Your task to perform on an android device: Check the news Image 0: 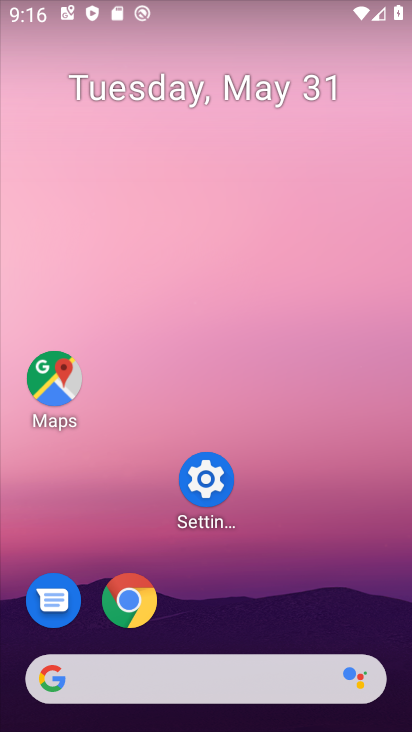
Step 0: drag from (215, 710) to (210, 293)
Your task to perform on an android device: Check the news Image 1: 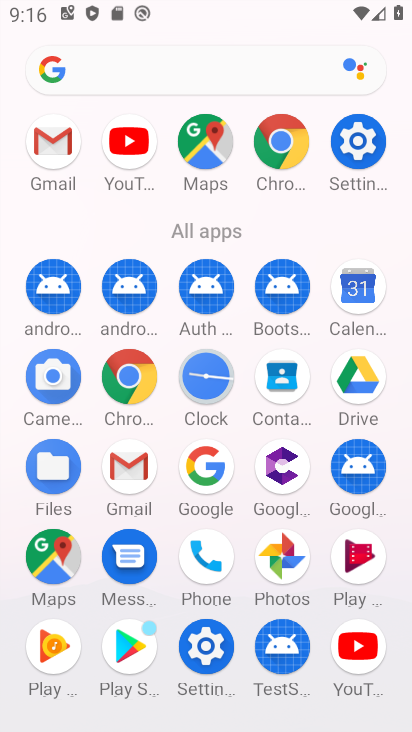
Step 1: click (100, 70)
Your task to perform on an android device: Check the news Image 2: 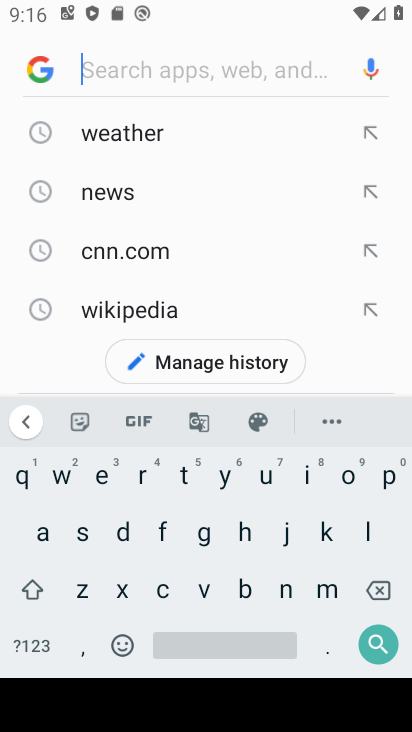
Step 2: click (115, 187)
Your task to perform on an android device: Check the news Image 3: 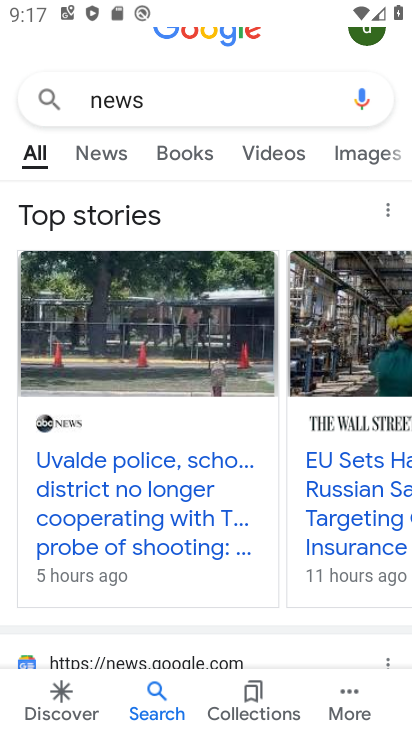
Step 3: task complete